Your task to perform on an android device: Go to notification settings Image 0: 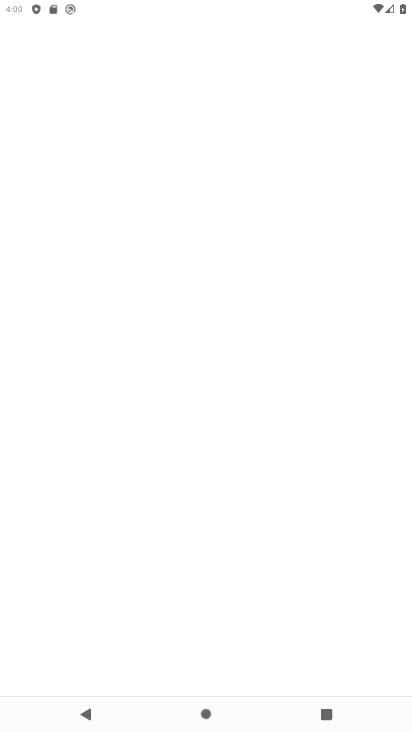
Step 0: click (133, 617)
Your task to perform on an android device: Go to notification settings Image 1: 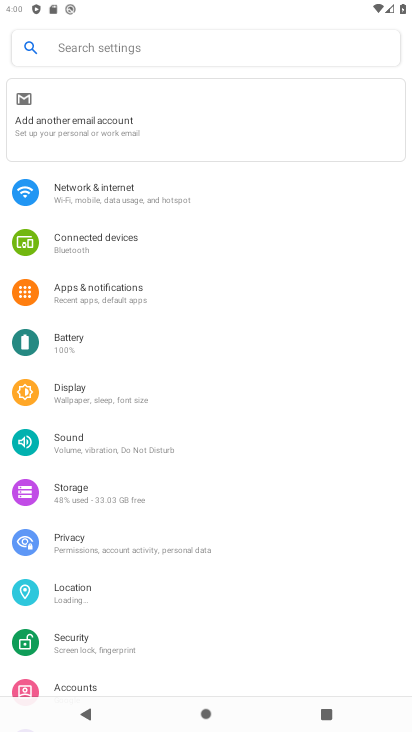
Step 1: press home button
Your task to perform on an android device: Go to notification settings Image 2: 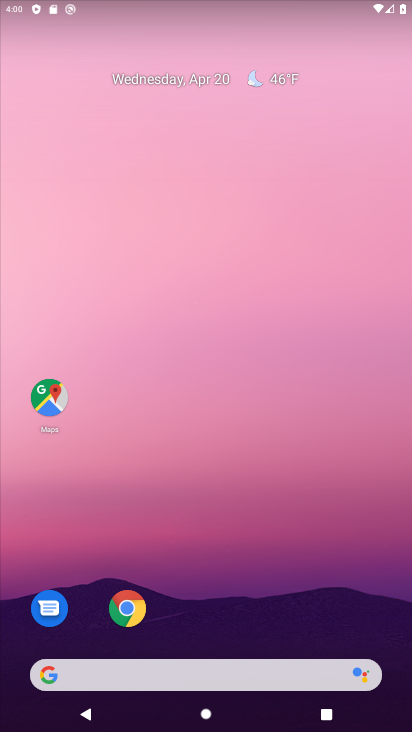
Step 2: drag from (214, 639) to (200, 307)
Your task to perform on an android device: Go to notification settings Image 3: 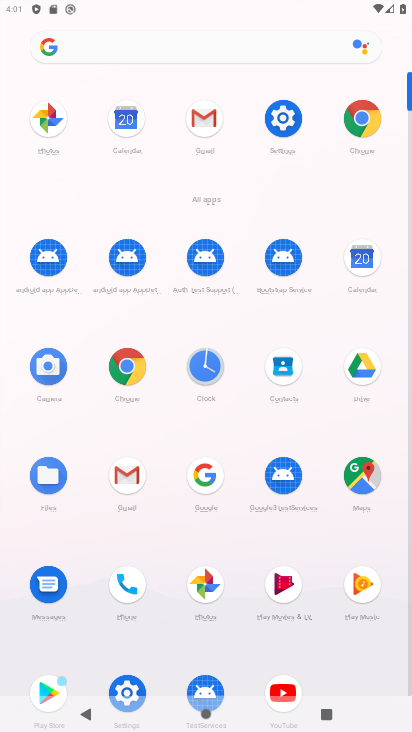
Step 3: click (280, 116)
Your task to perform on an android device: Go to notification settings Image 4: 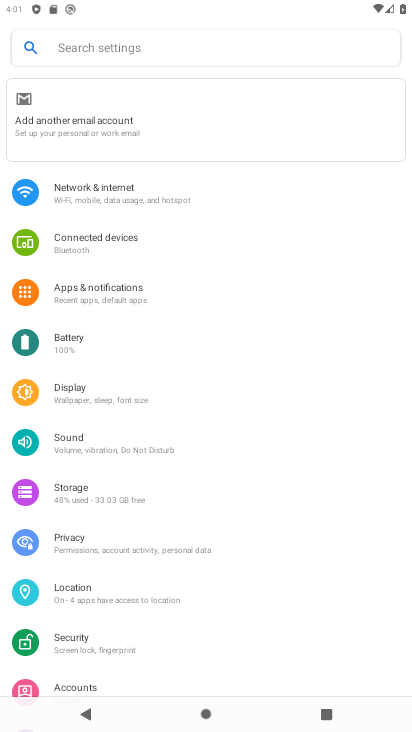
Step 4: click (101, 297)
Your task to perform on an android device: Go to notification settings Image 5: 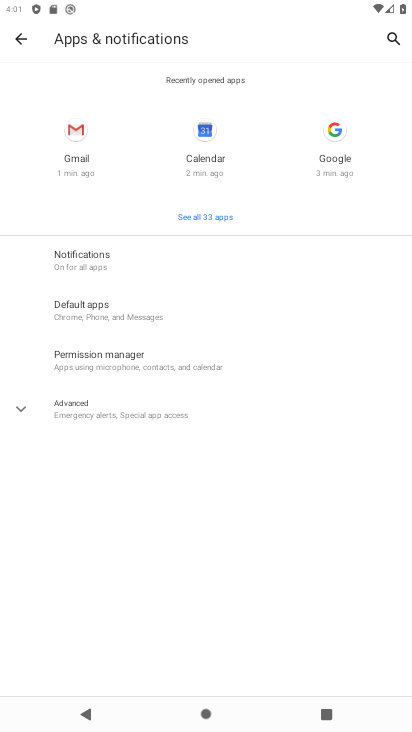
Step 5: click (88, 268)
Your task to perform on an android device: Go to notification settings Image 6: 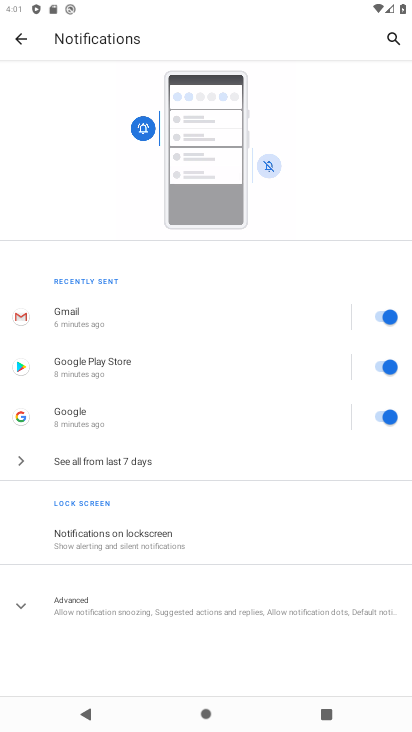
Step 6: task complete